Your task to perform on an android device: What's on my calendar tomorrow? Image 0: 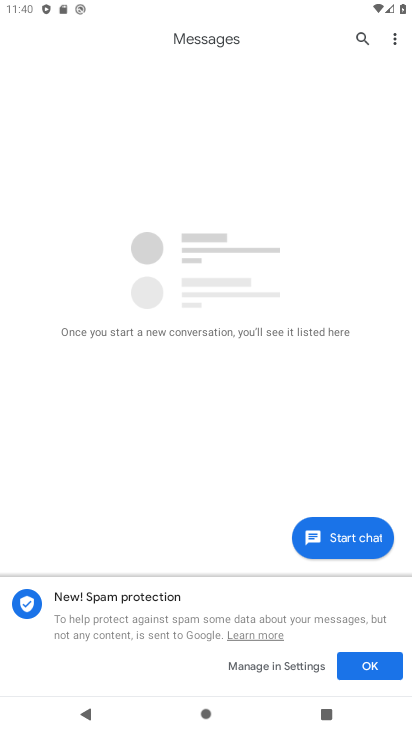
Step 0: press home button
Your task to perform on an android device: What's on my calendar tomorrow? Image 1: 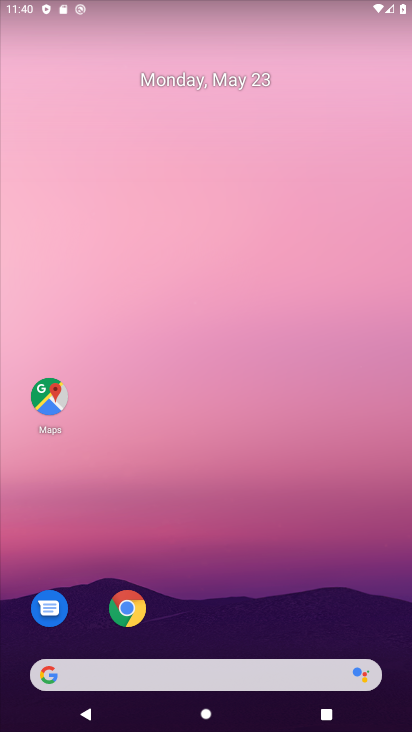
Step 1: drag from (225, 634) to (266, 50)
Your task to perform on an android device: What's on my calendar tomorrow? Image 2: 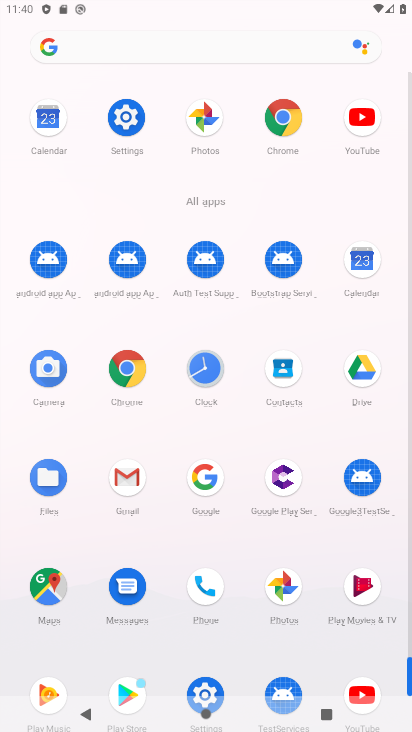
Step 2: click (359, 257)
Your task to perform on an android device: What's on my calendar tomorrow? Image 3: 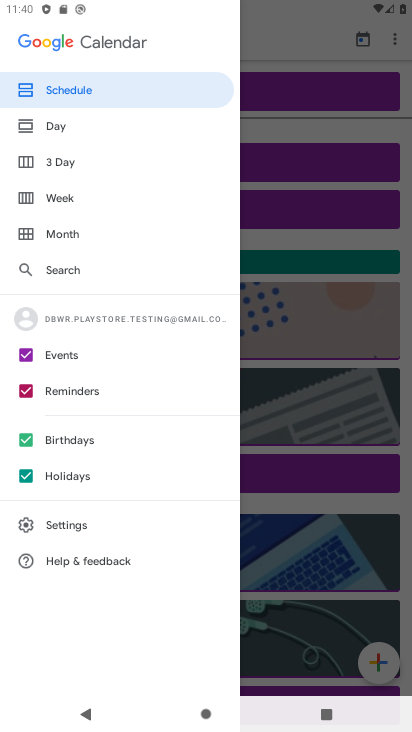
Step 3: click (65, 125)
Your task to perform on an android device: What's on my calendar tomorrow? Image 4: 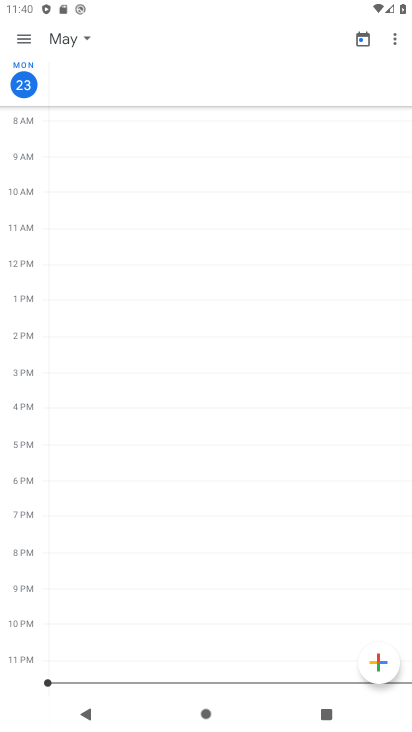
Step 4: click (80, 36)
Your task to perform on an android device: What's on my calendar tomorrow? Image 5: 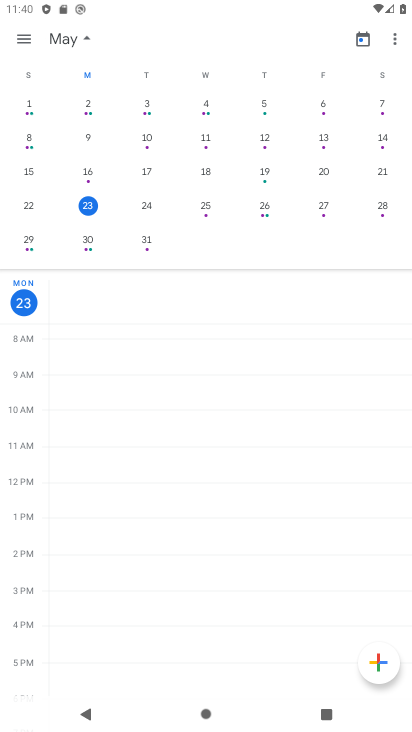
Step 5: click (148, 203)
Your task to perform on an android device: What's on my calendar tomorrow? Image 6: 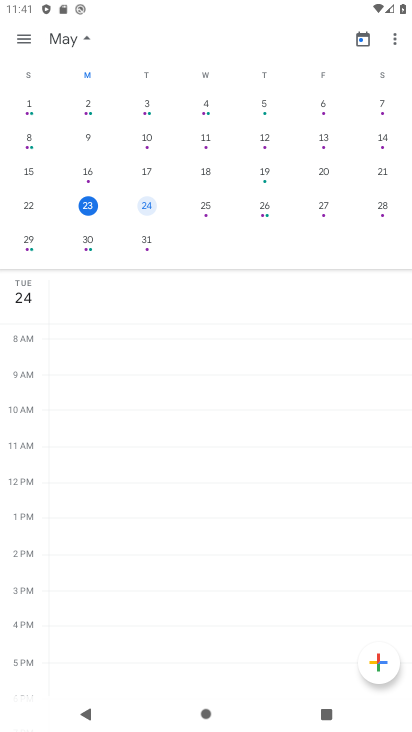
Step 6: click (81, 35)
Your task to perform on an android device: What's on my calendar tomorrow? Image 7: 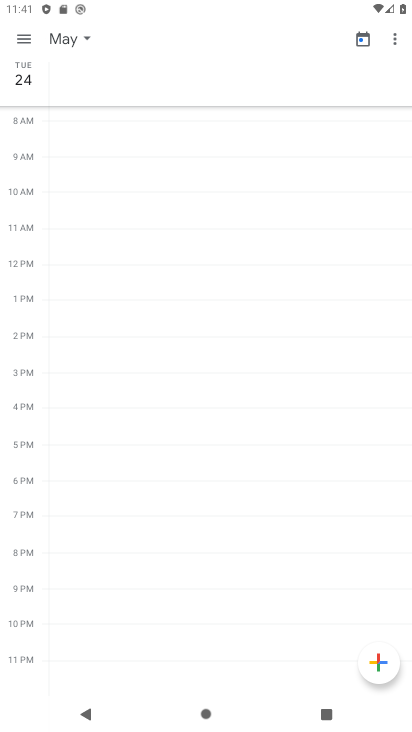
Step 7: task complete